Your task to perform on an android device: Open the Play Movies app and select the watchlist tab. Image 0: 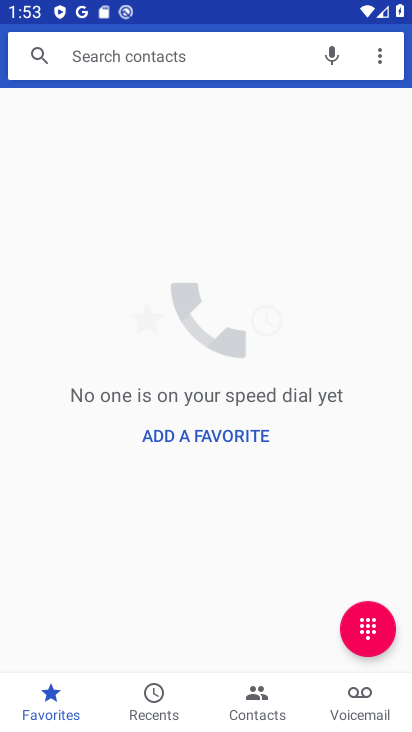
Step 0: press home button
Your task to perform on an android device: Open the Play Movies app and select the watchlist tab. Image 1: 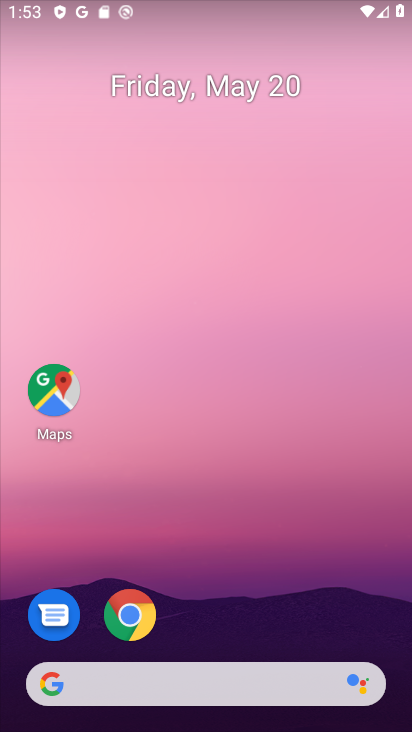
Step 1: drag from (232, 591) to (225, 201)
Your task to perform on an android device: Open the Play Movies app and select the watchlist tab. Image 2: 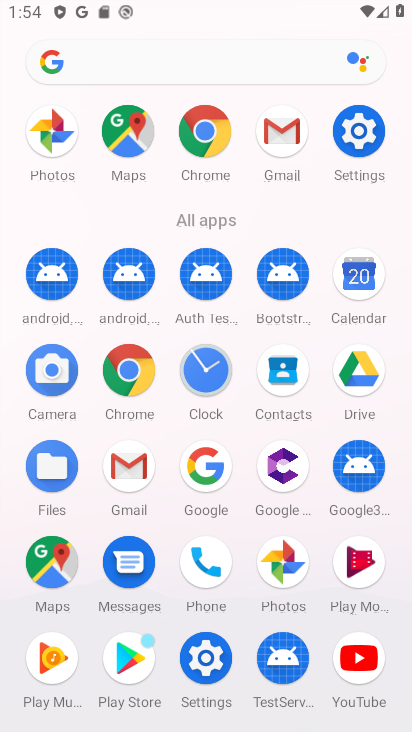
Step 2: click (376, 583)
Your task to perform on an android device: Open the Play Movies app and select the watchlist tab. Image 3: 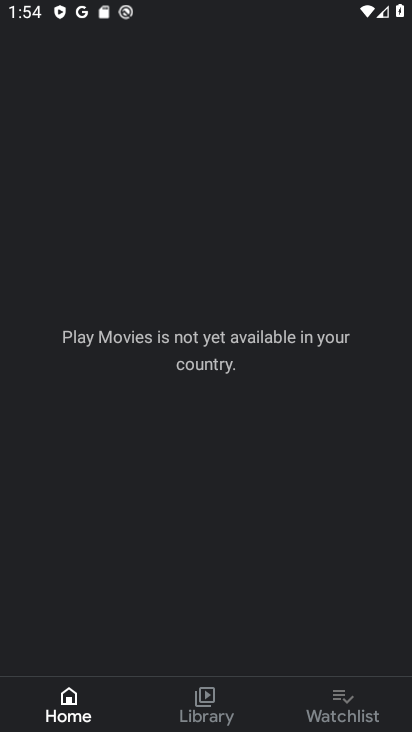
Step 3: click (353, 711)
Your task to perform on an android device: Open the Play Movies app and select the watchlist tab. Image 4: 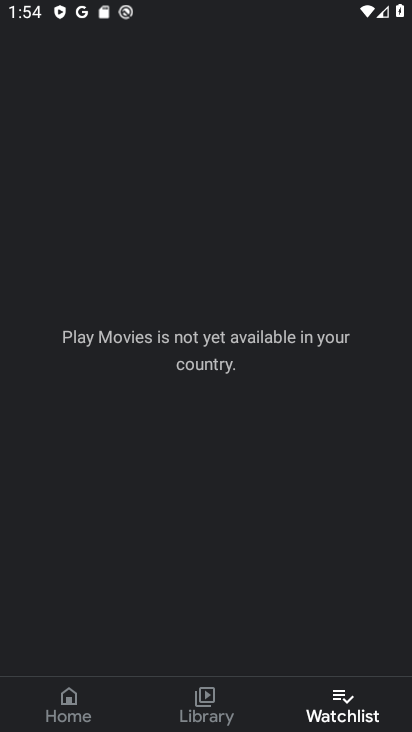
Step 4: task complete